Your task to perform on an android device: Open network settings Image 0: 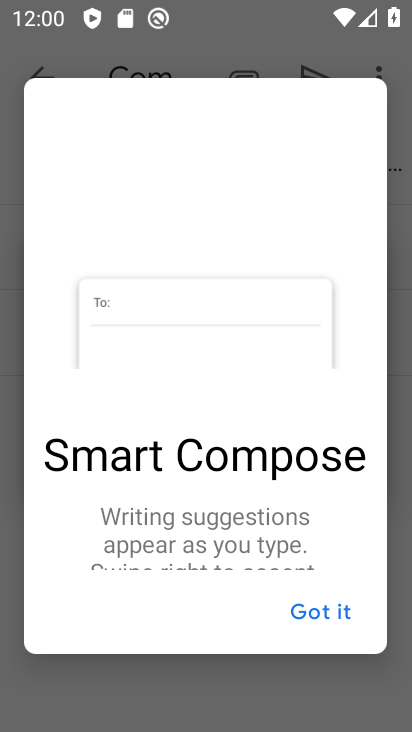
Step 0: press home button
Your task to perform on an android device: Open network settings Image 1: 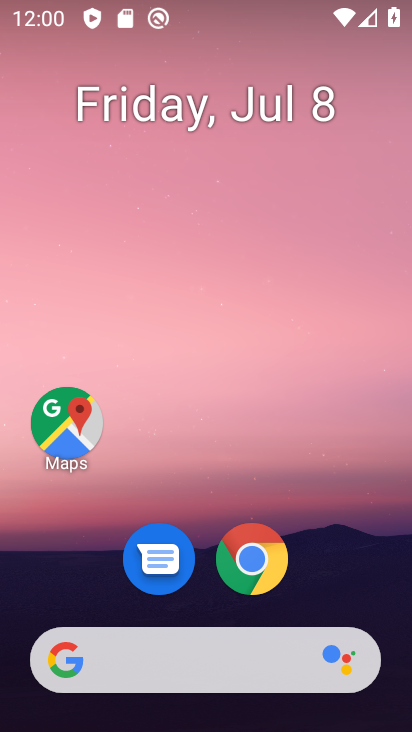
Step 1: drag from (182, 611) to (135, 137)
Your task to perform on an android device: Open network settings Image 2: 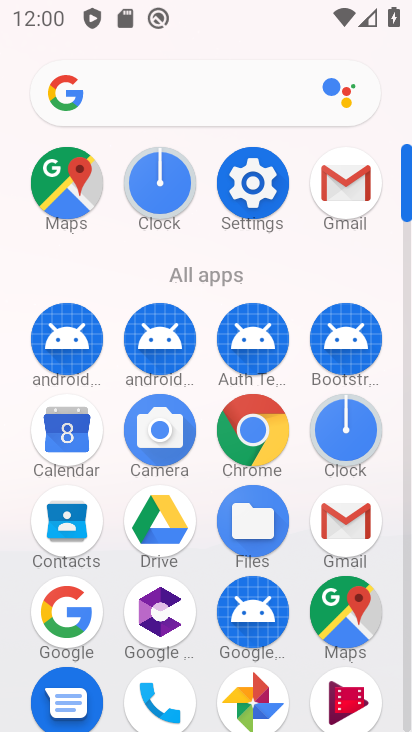
Step 2: click (236, 184)
Your task to perform on an android device: Open network settings Image 3: 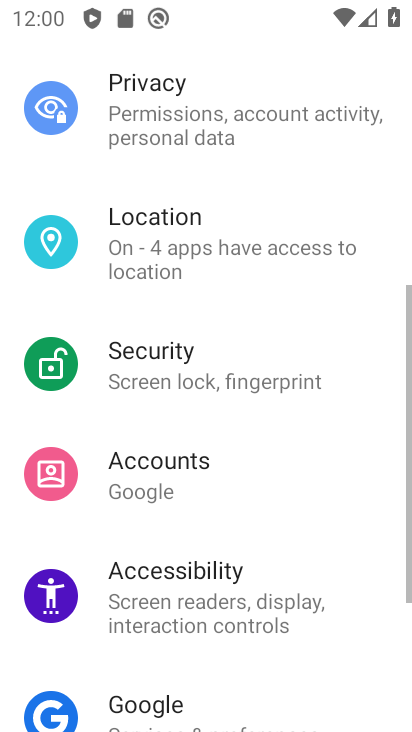
Step 3: drag from (256, 167) to (271, 544)
Your task to perform on an android device: Open network settings Image 4: 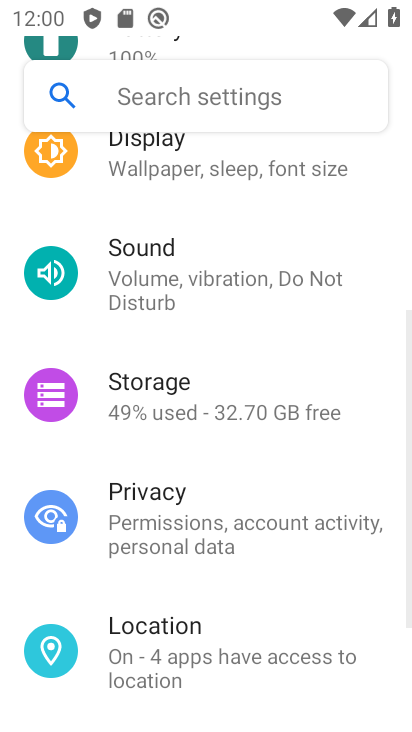
Step 4: drag from (213, 152) to (210, 514)
Your task to perform on an android device: Open network settings Image 5: 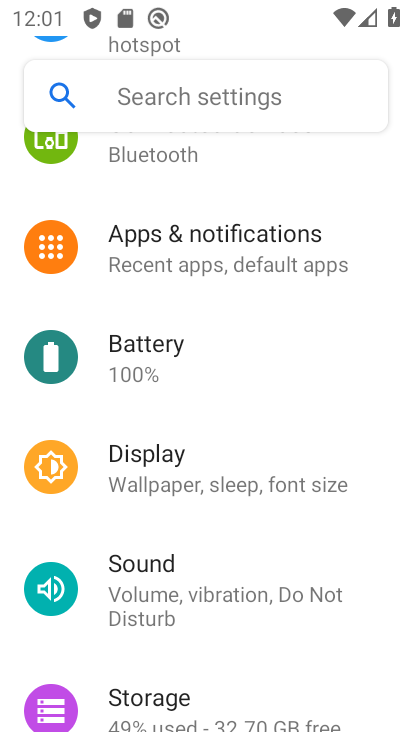
Step 5: drag from (106, 181) to (131, 563)
Your task to perform on an android device: Open network settings Image 6: 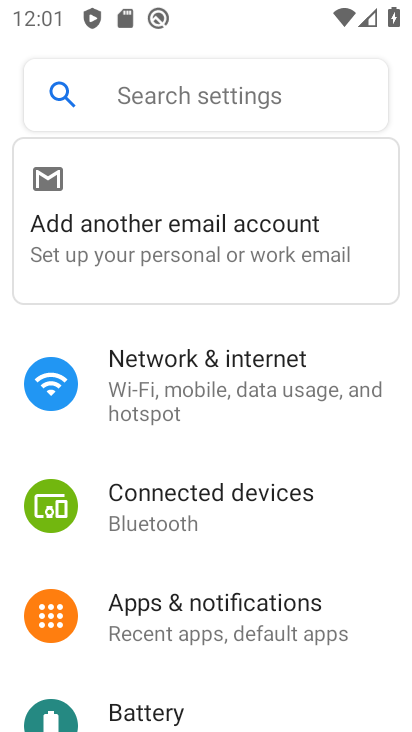
Step 6: click (169, 377)
Your task to perform on an android device: Open network settings Image 7: 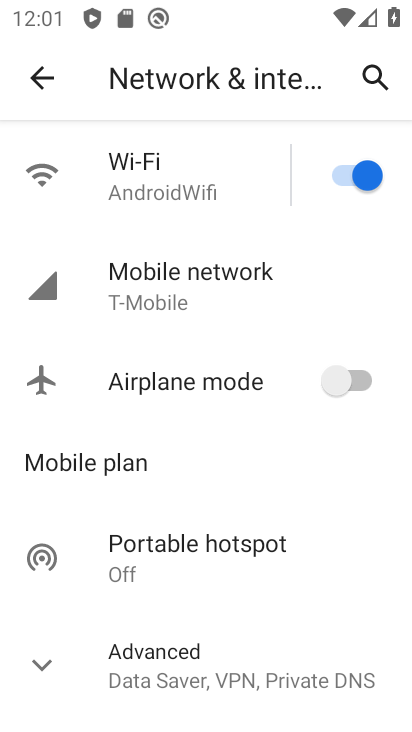
Step 7: click (165, 306)
Your task to perform on an android device: Open network settings Image 8: 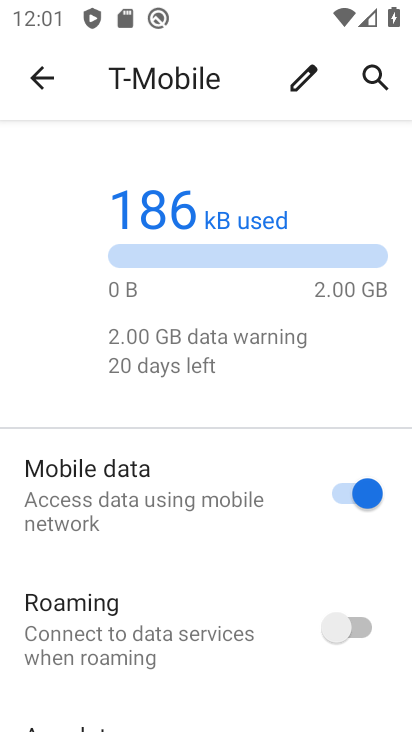
Step 8: task complete